Your task to perform on an android device: Go to battery settings Image 0: 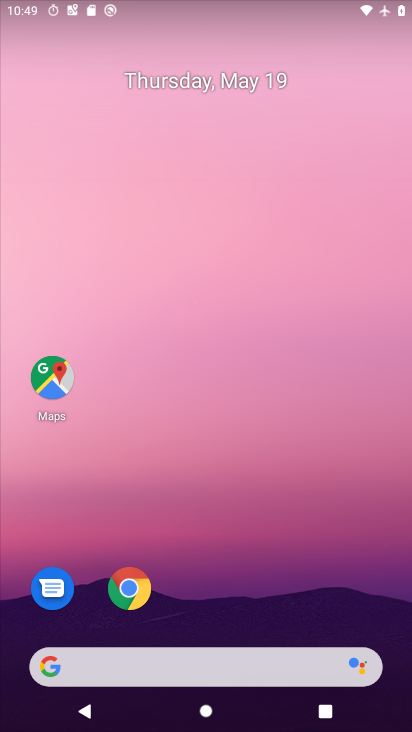
Step 0: drag from (144, 669) to (240, 127)
Your task to perform on an android device: Go to battery settings Image 1: 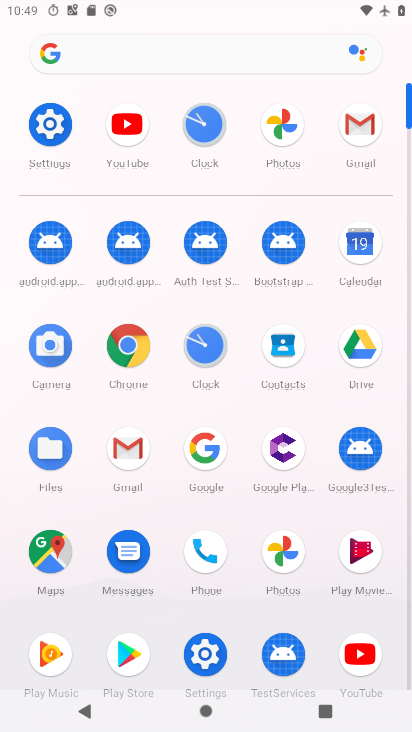
Step 1: click (56, 126)
Your task to perform on an android device: Go to battery settings Image 2: 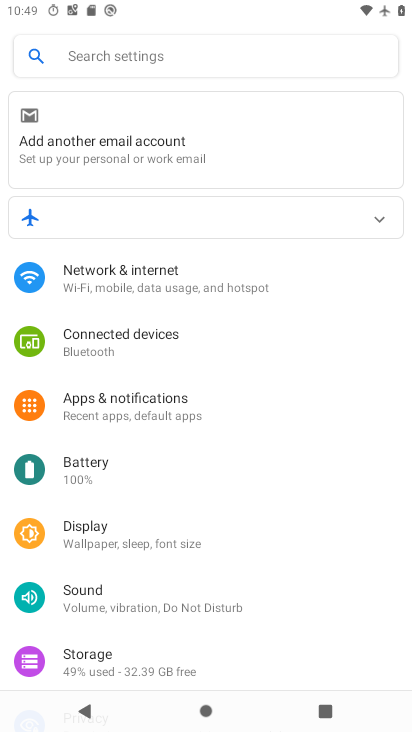
Step 2: click (114, 457)
Your task to perform on an android device: Go to battery settings Image 3: 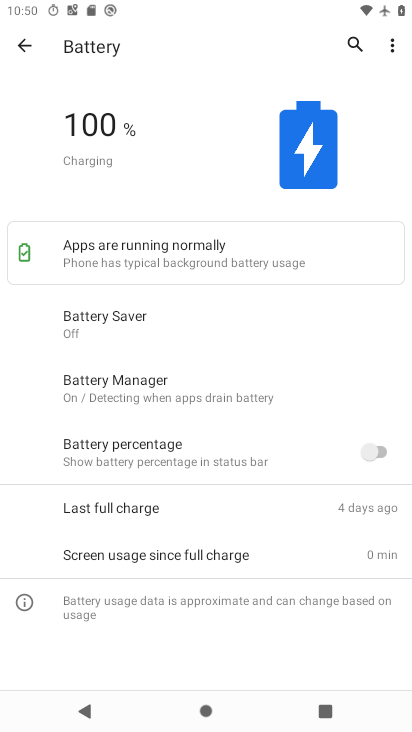
Step 3: task complete